Your task to perform on an android device: see tabs open on other devices in the chrome app Image 0: 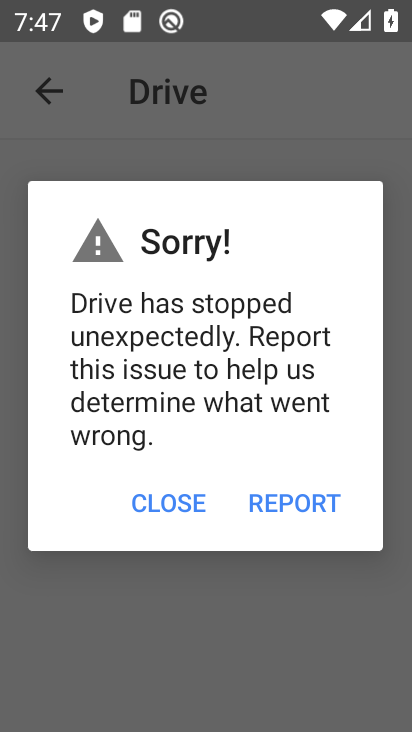
Step 0: press home button
Your task to perform on an android device: see tabs open on other devices in the chrome app Image 1: 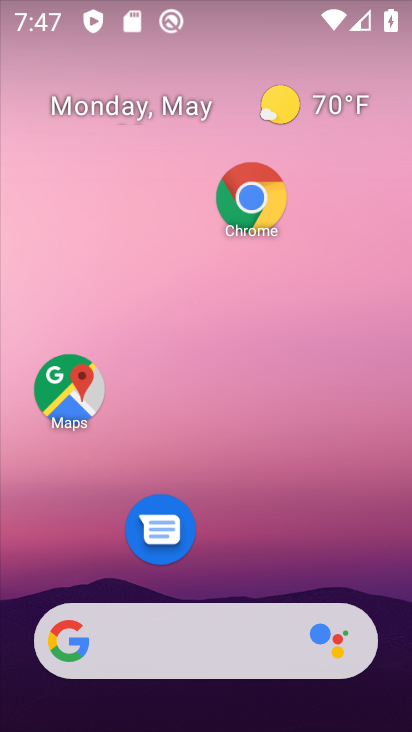
Step 1: click (248, 191)
Your task to perform on an android device: see tabs open on other devices in the chrome app Image 2: 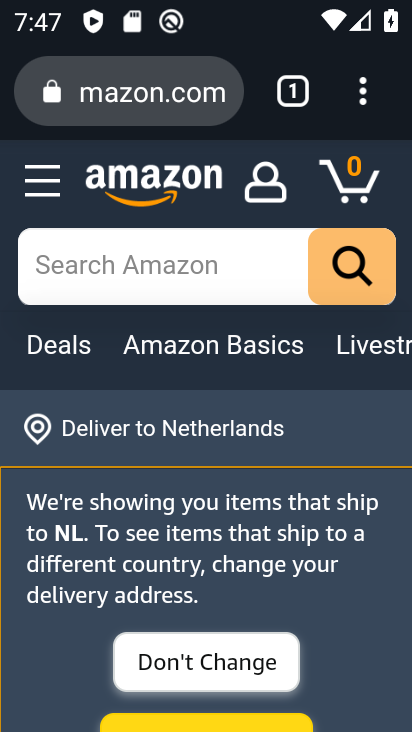
Step 2: click (355, 90)
Your task to perform on an android device: see tabs open on other devices in the chrome app Image 3: 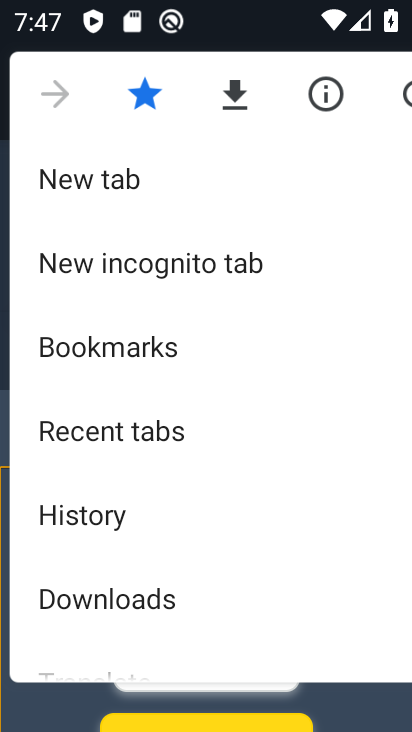
Step 3: drag from (227, 612) to (256, 75)
Your task to perform on an android device: see tabs open on other devices in the chrome app Image 4: 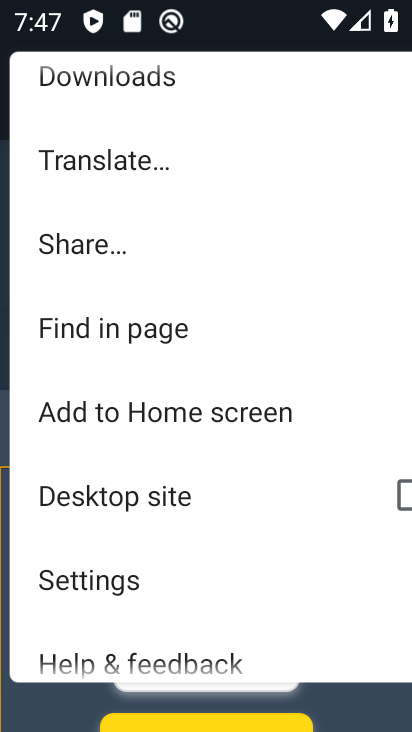
Step 4: drag from (203, 177) to (250, 620)
Your task to perform on an android device: see tabs open on other devices in the chrome app Image 5: 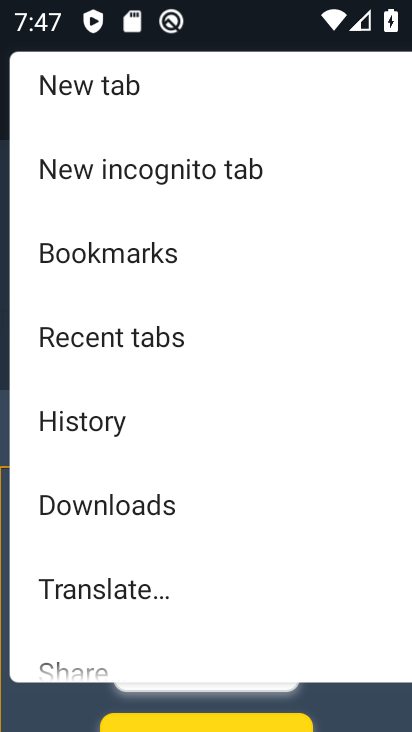
Step 5: click (201, 335)
Your task to perform on an android device: see tabs open on other devices in the chrome app Image 6: 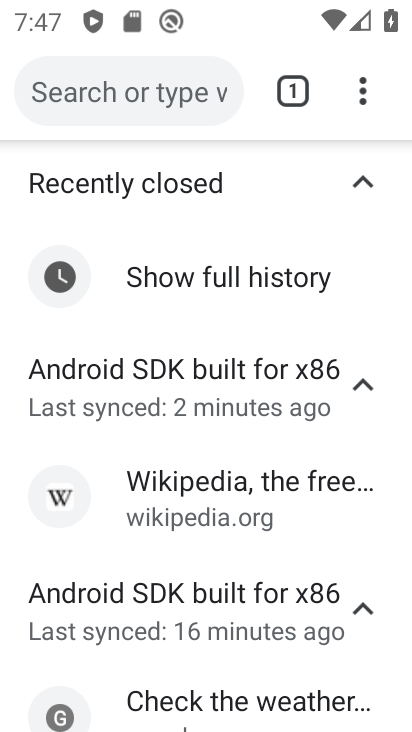
Step 6: task complete